Your task to perform on an android device: Open Google Maps Image 0: 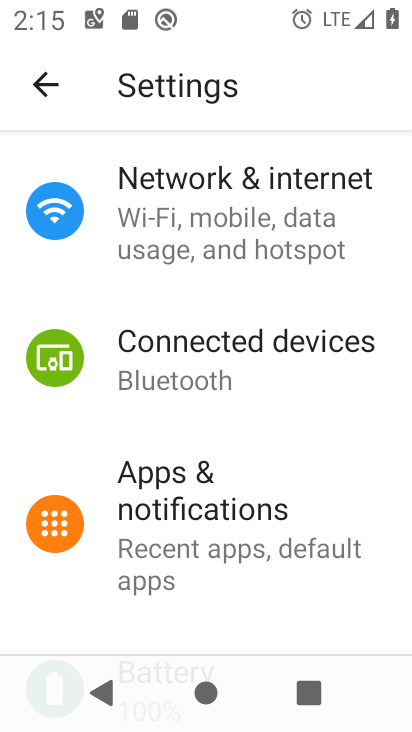
Step 0: press home button
Your task to perform on an android device: Open Google Maps Image 1: 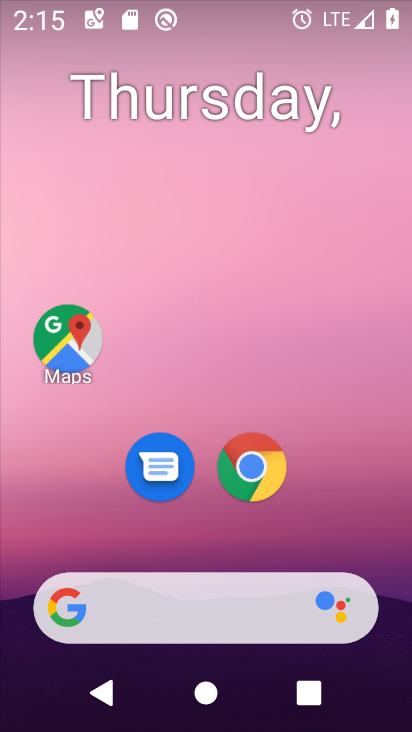
Step 1: click (80, 325)
Your task to perform on an android device: Open Google Maps Image 2: 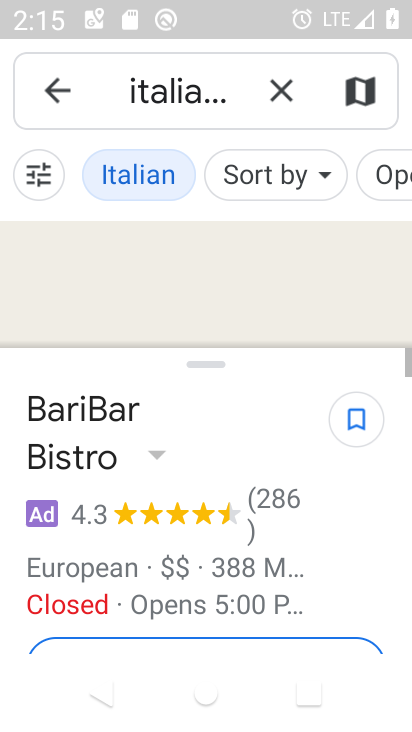
Step 2: task complete